Your task to perform on an android device: Open calendar and show me the third week of next month Image 0: 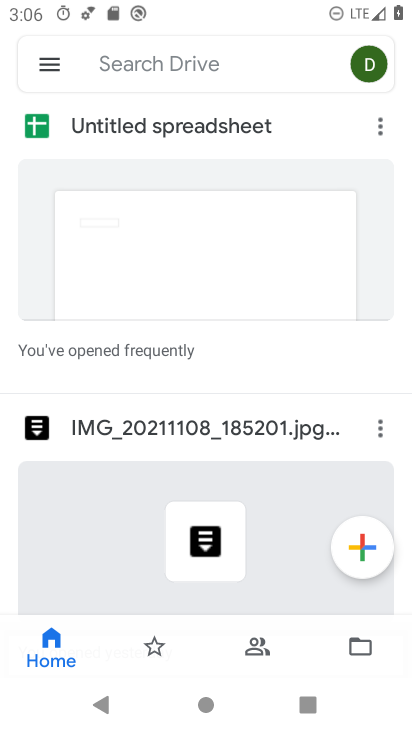
Step 0: press home button
Your task to perform on an android device: Open calendar and show me the third week of next month Image 1: 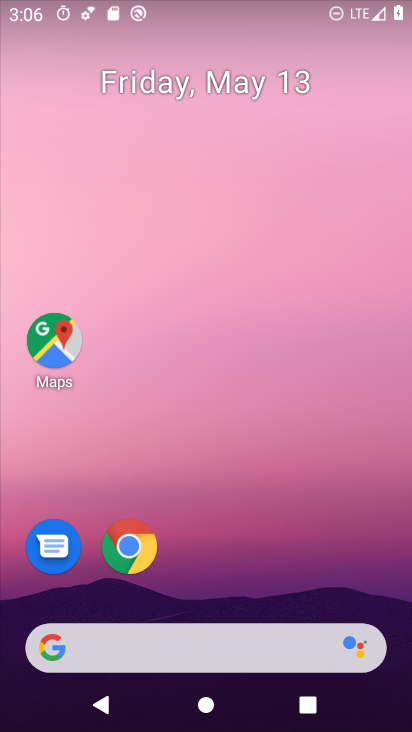
Step 1: drag from (248, 587) to (253, 12)
Your task to perform on an android device: Open calendar and show me the third week of next month Image 2: 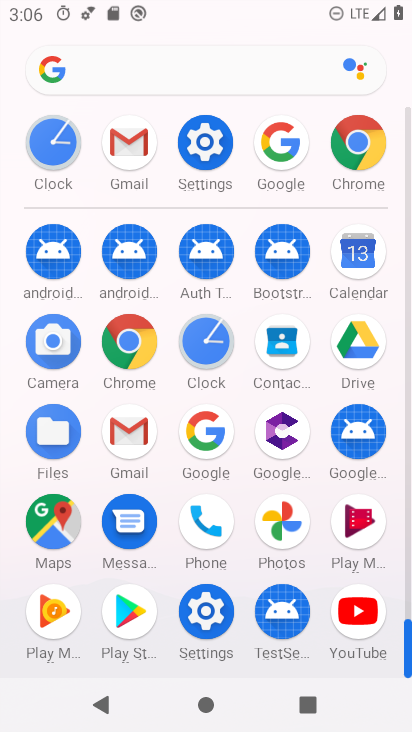
Step 2: click (364, 270)
Your task to perform on an android device: Open calendar and show me the third week of next month Image 3: 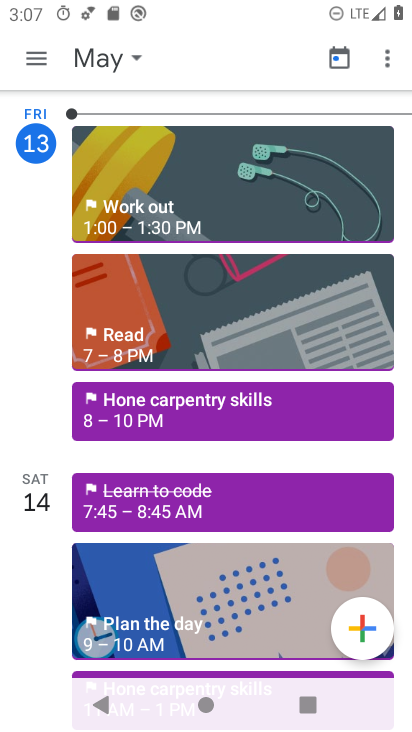
Step 3: click (96, 68)
Your task to perform on an android device: Open calendar and show me the third week of next month Image 4: 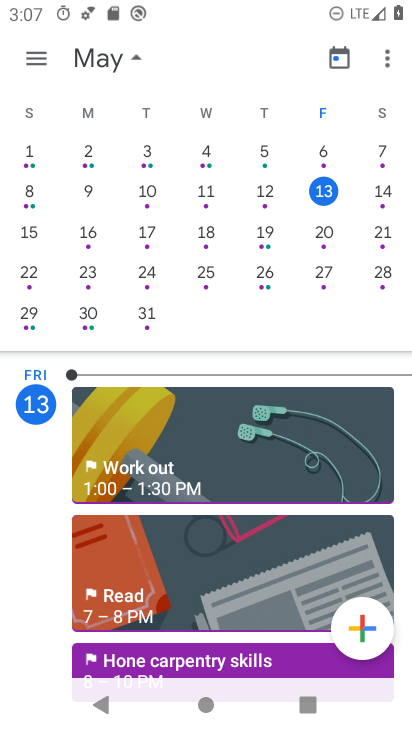
Step 4: drag from (371, 233) to (243, 264)
Your task to perform on an android device: Open calendar and show me the third week of next month Image 5: 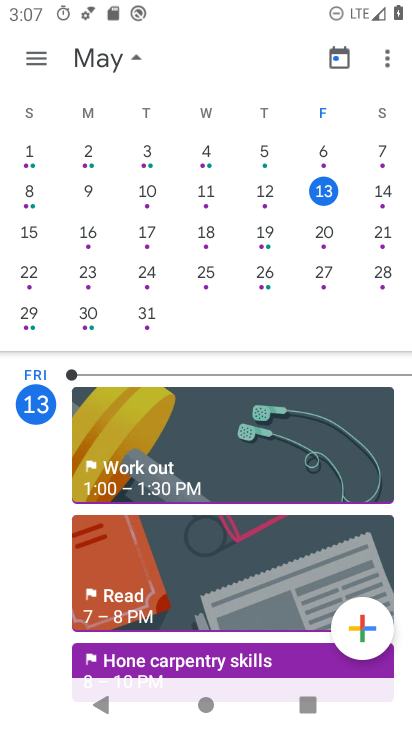
Step 5: drag from (360, 240) to (0, 292)
Your task to perform on an android device: Open calendar and show me the third week of next month Image 6: 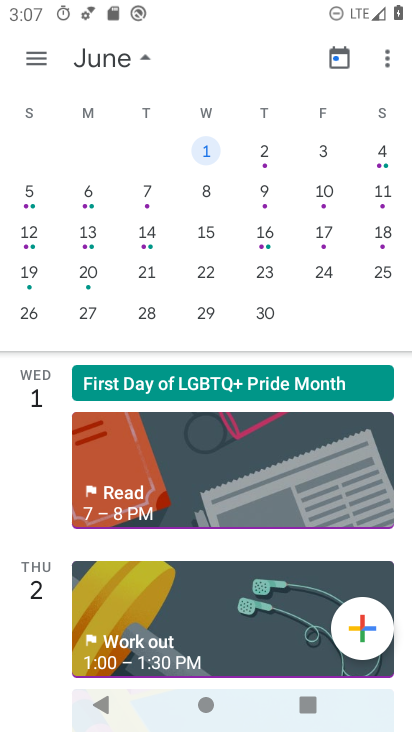
Step 6: click (31, 274)
Your task to perform on an android device: Open calendar and show me the third week of next month Image 7: 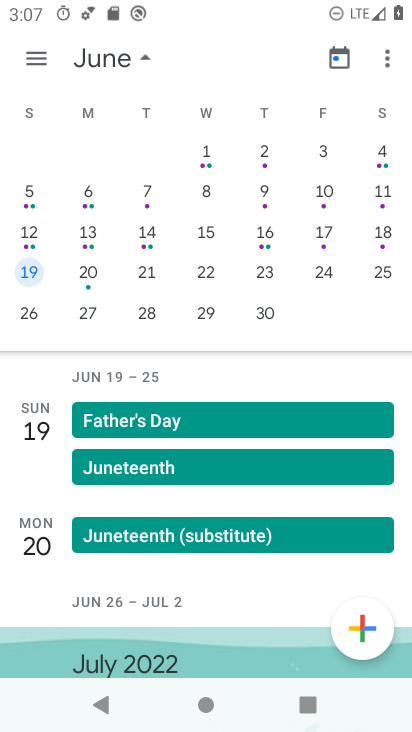
Step 7: task complete